Your task to perform on an android device: check the backup settings in the google photos Image 0: 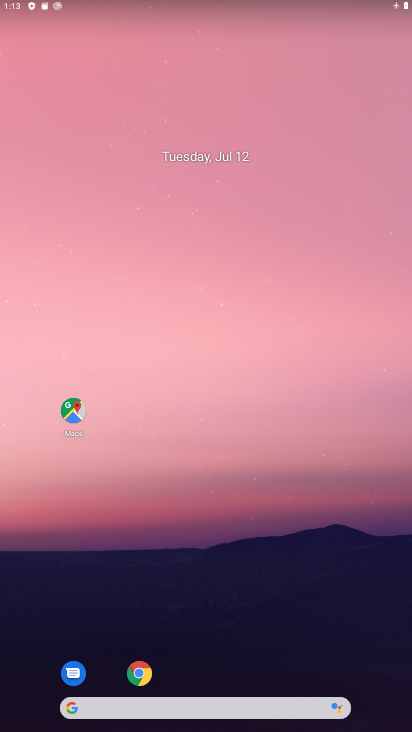
Step 0: drag from (290, 579) to (288, 339)
Your task to perform on an android device: check the backup settings in the google photos Image 1: 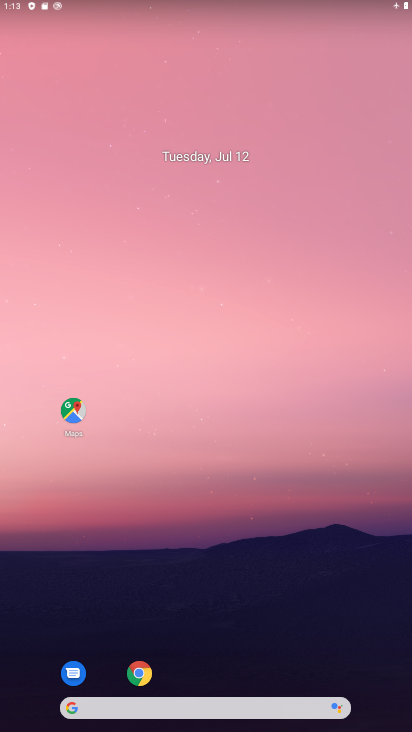
Step 1: drag from (265, 600) to (238, 173)
Your task to perform on an android device: check the backup settings in the google photos Image 2: 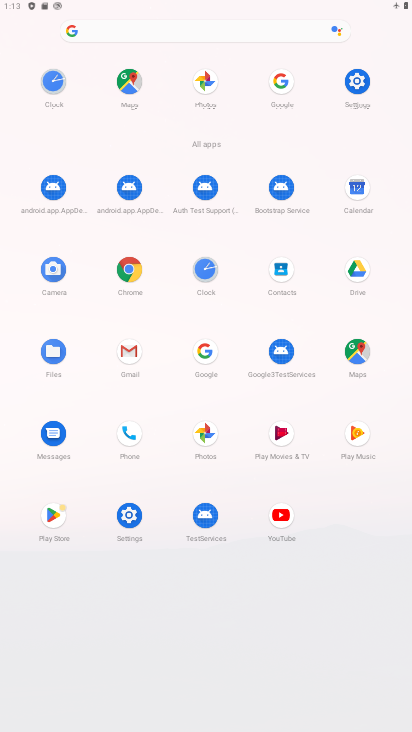
Step 2: click (205, 431)
Your task to perform on an android device: check the backup settings in the google photos Image 3: 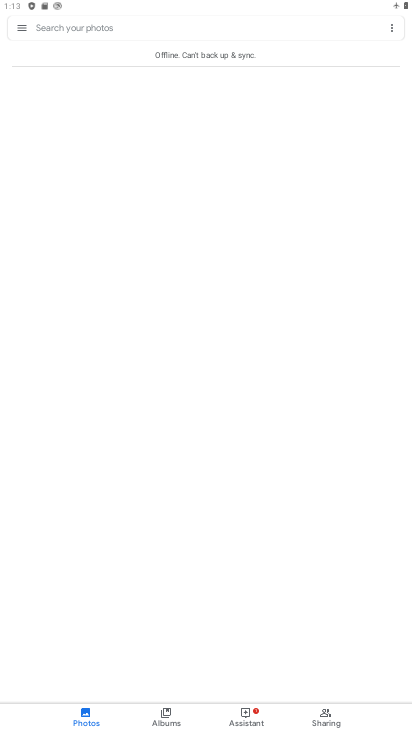
Step 3: click (25, 19)
Your task to perform on an android device: check the backup settings in the google photos Image 4: 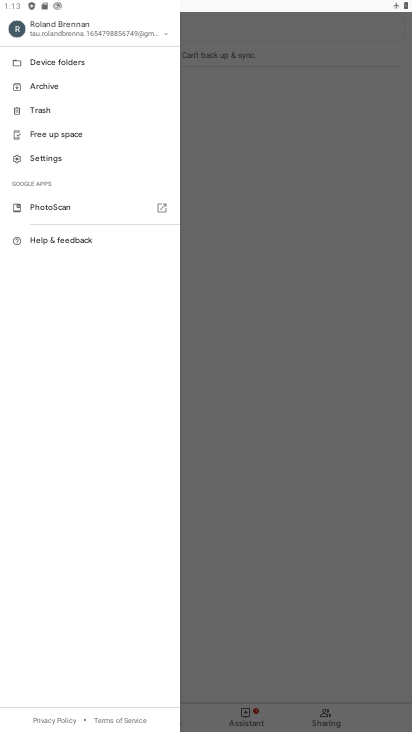
Step 4: click (64, 162)
Your task to perform on an android device: check the backup settings in the google photos Image 5: 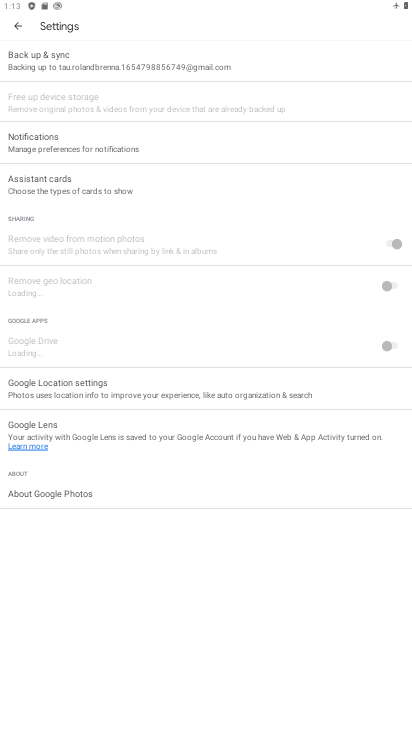
Step 5: click (56, 51)
Your task to perform on an android device: check the backup settings in the google photos Image 6: 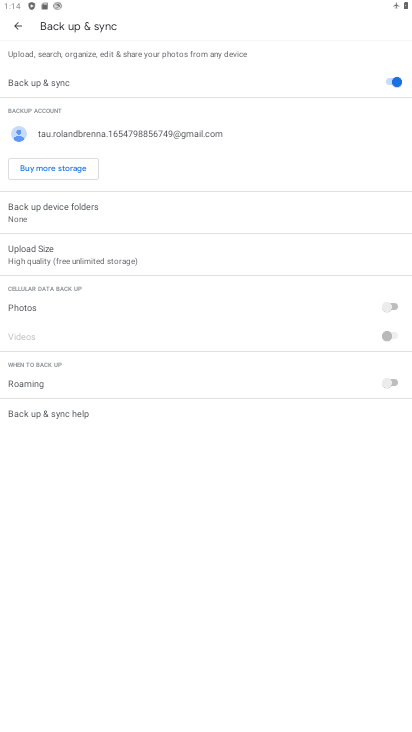
Step 6: task complete